Your task to perform on an android device: open app "Gmail" (install if not already installed) Image 0: 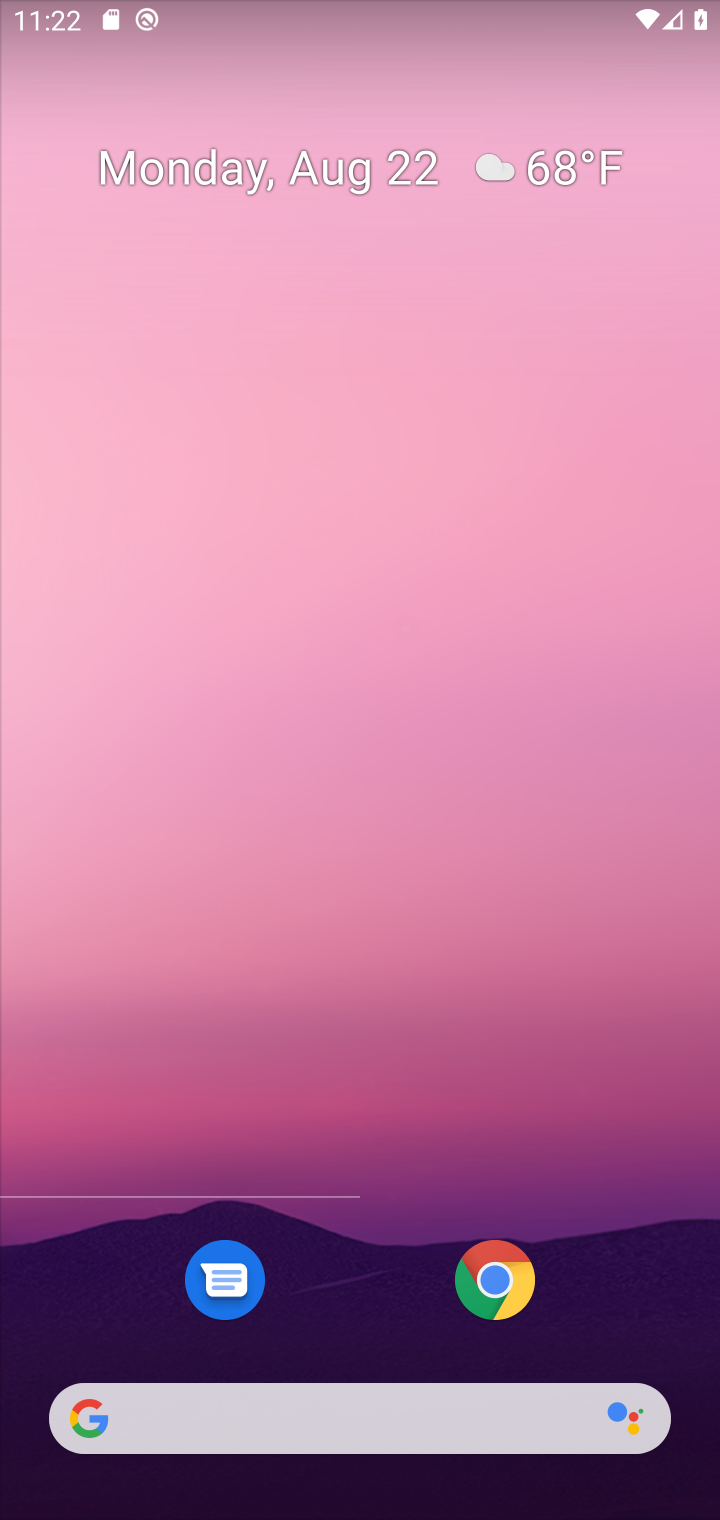
Step 0: press home button
Your task to perform on an android device: open app "Gmail" (install if not already installed) Image 1: 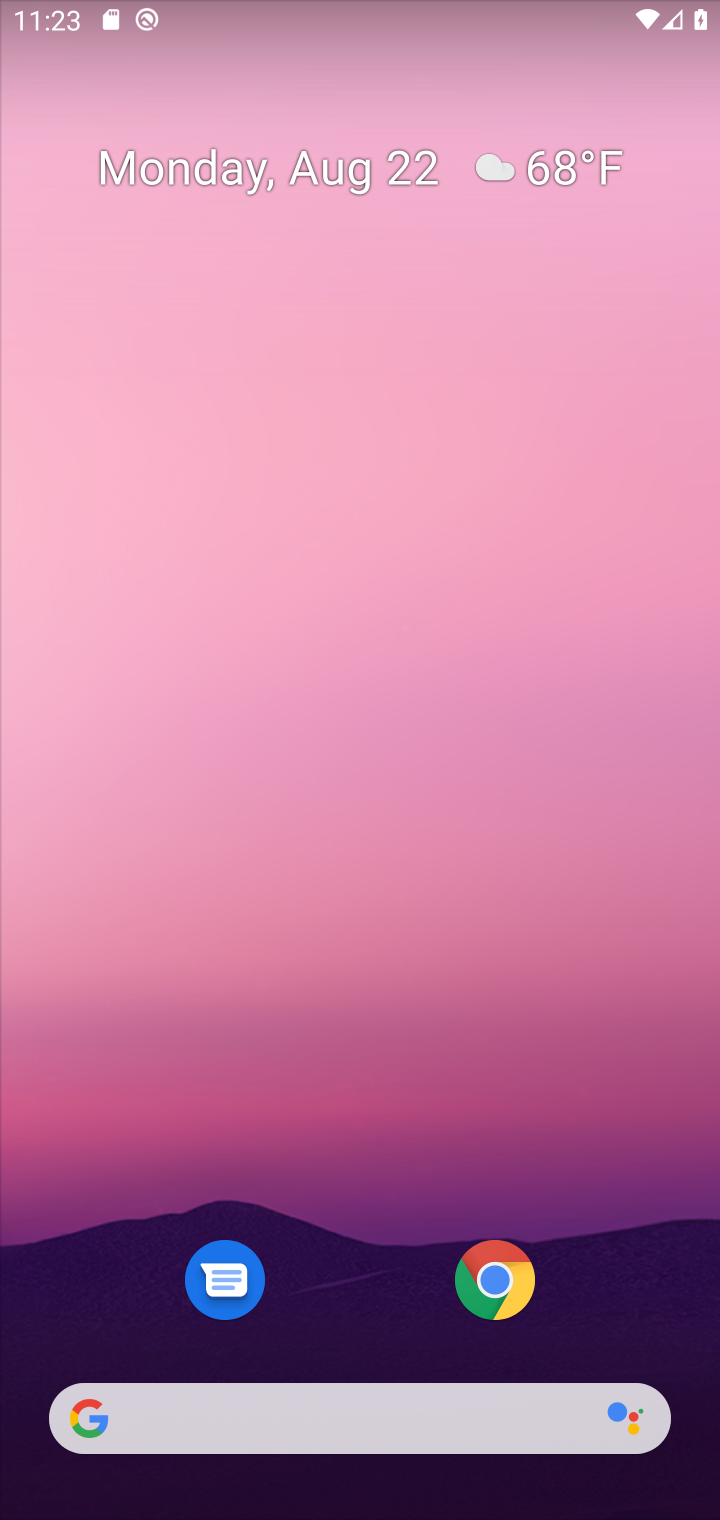
Step 1: drag from (366, 1290) to (333, 294)
Your task to perform on an android device: open app "Gmail" (install if not already installed) Image 2: 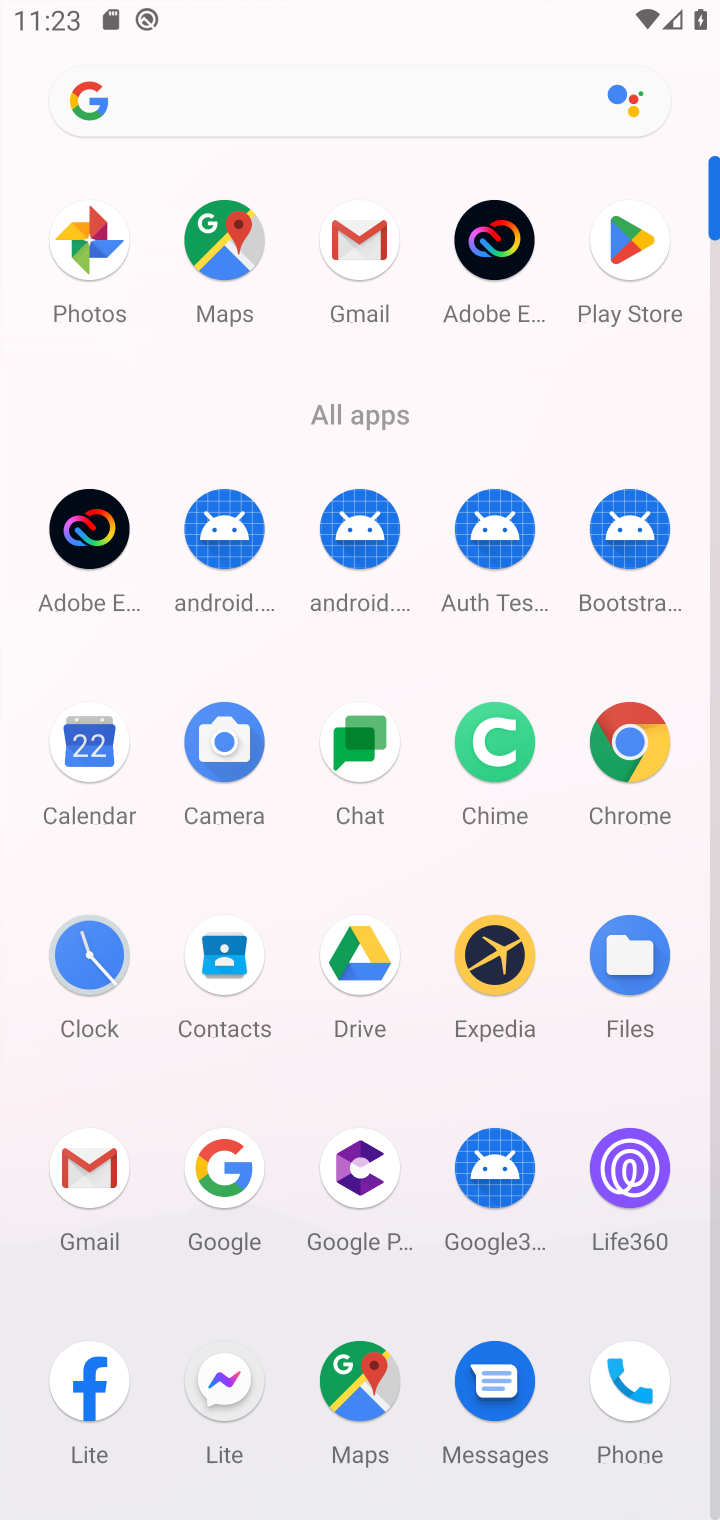
Step 2: click (631, 249)
Your task to perform on an android device: open app "Gmail" (install if not already installed) Image 3: 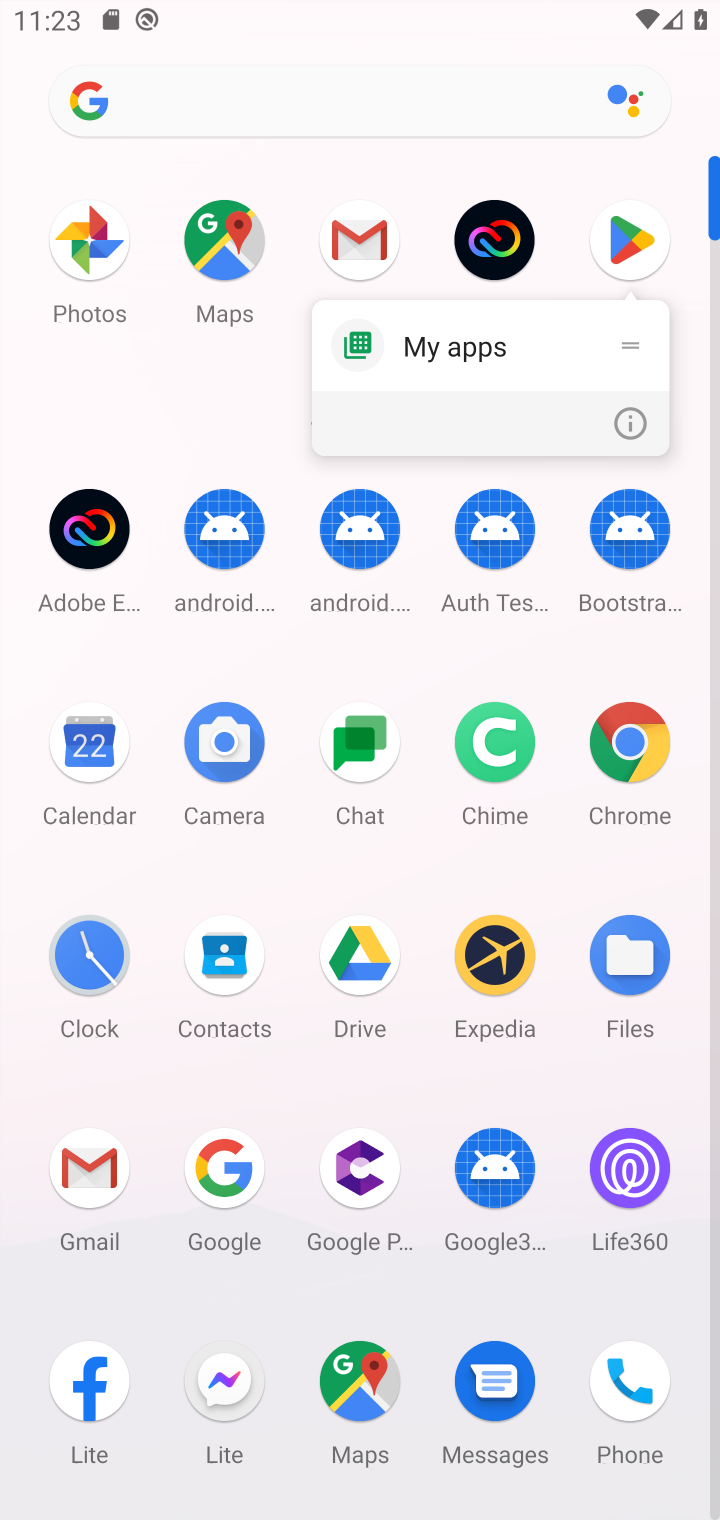
Step 3: click (626, 234)
Your task to perform on an android device: open app "Gmail" (install if not already installed) Image 4: 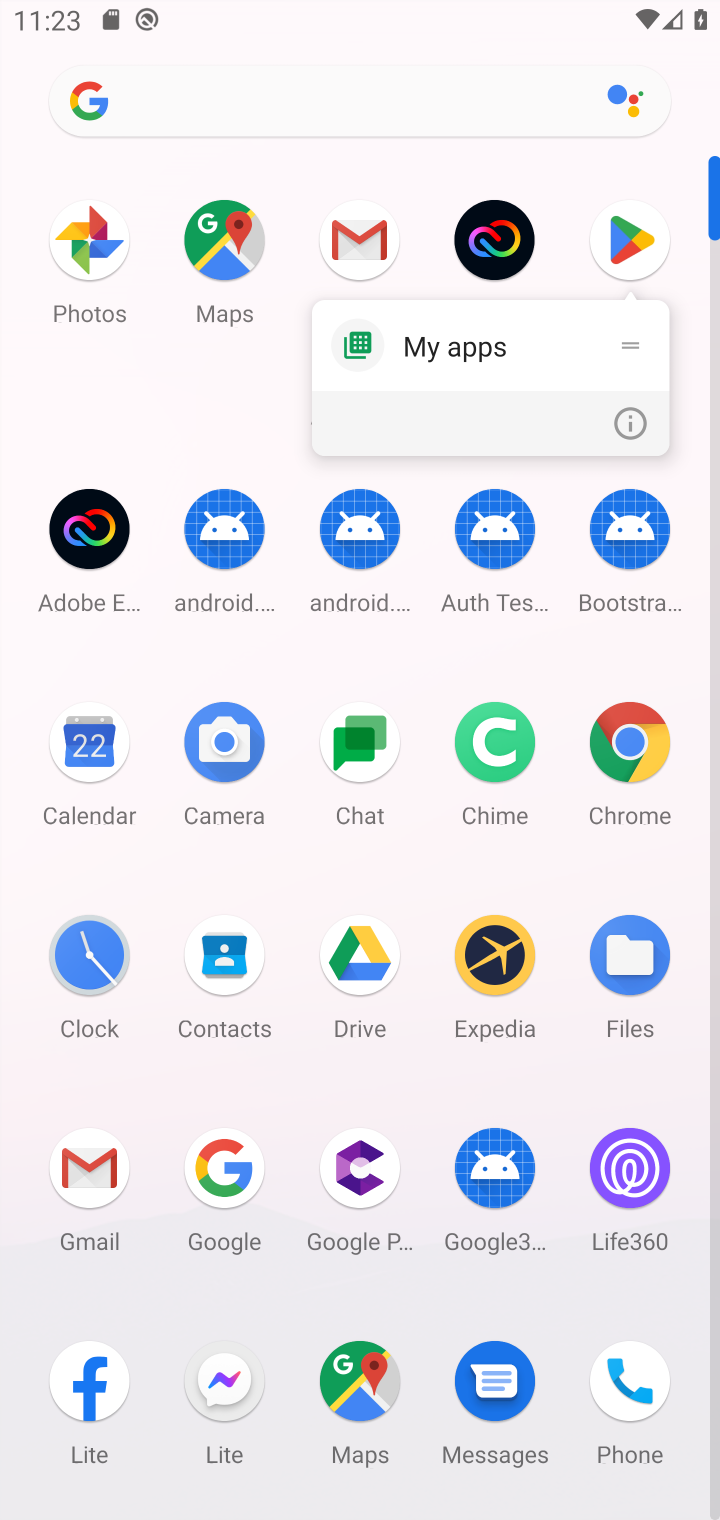
Step 4: click (624, 255)
Your task to perform on an android device: open app "Gmail" (install if not already installed) Image 5: 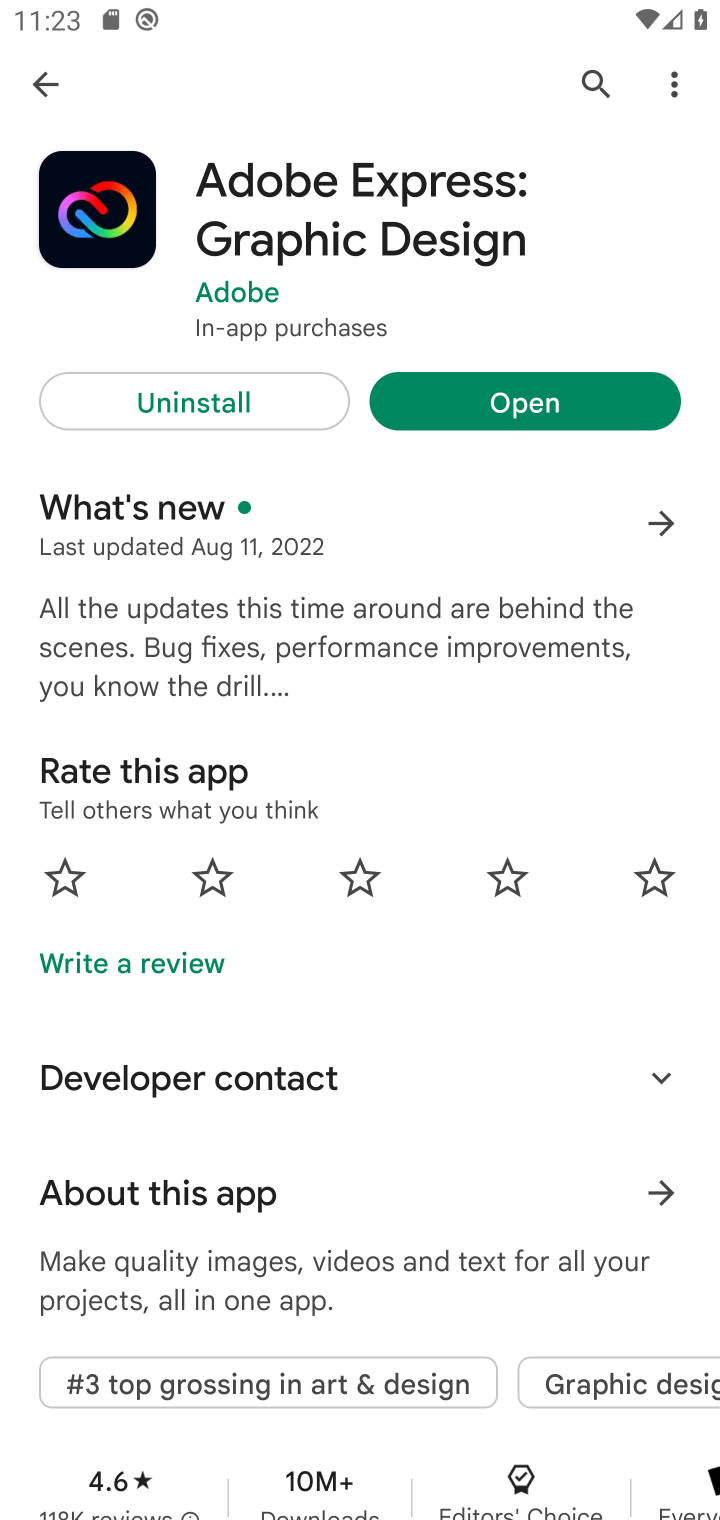
Step 5: click (586, 72)
Your task to perform on an android device: open app "Gmail" (install if not already installed) Image 6: 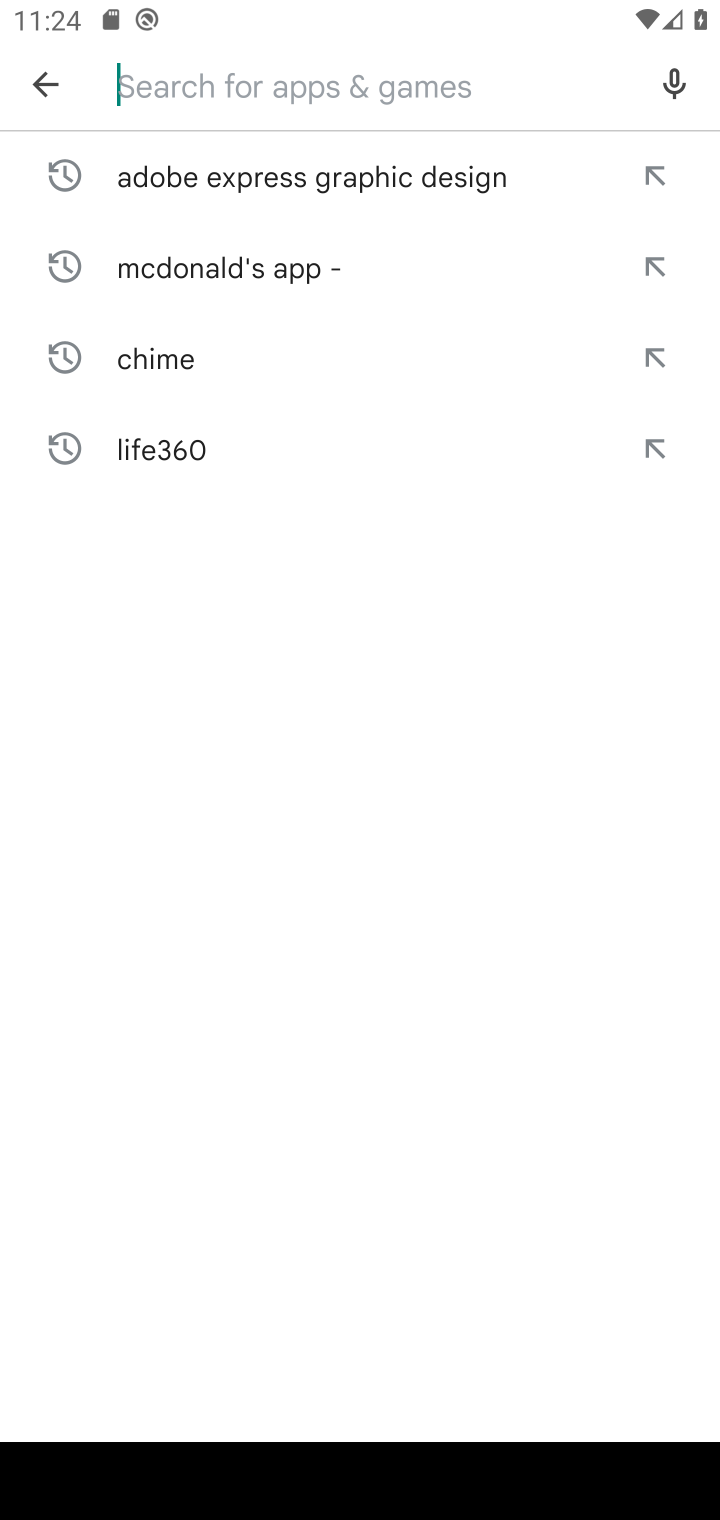
Step 6: type "Gmail"
Your task to perform on an android device: open app "Gmail" (install if not already installed) Image 7: 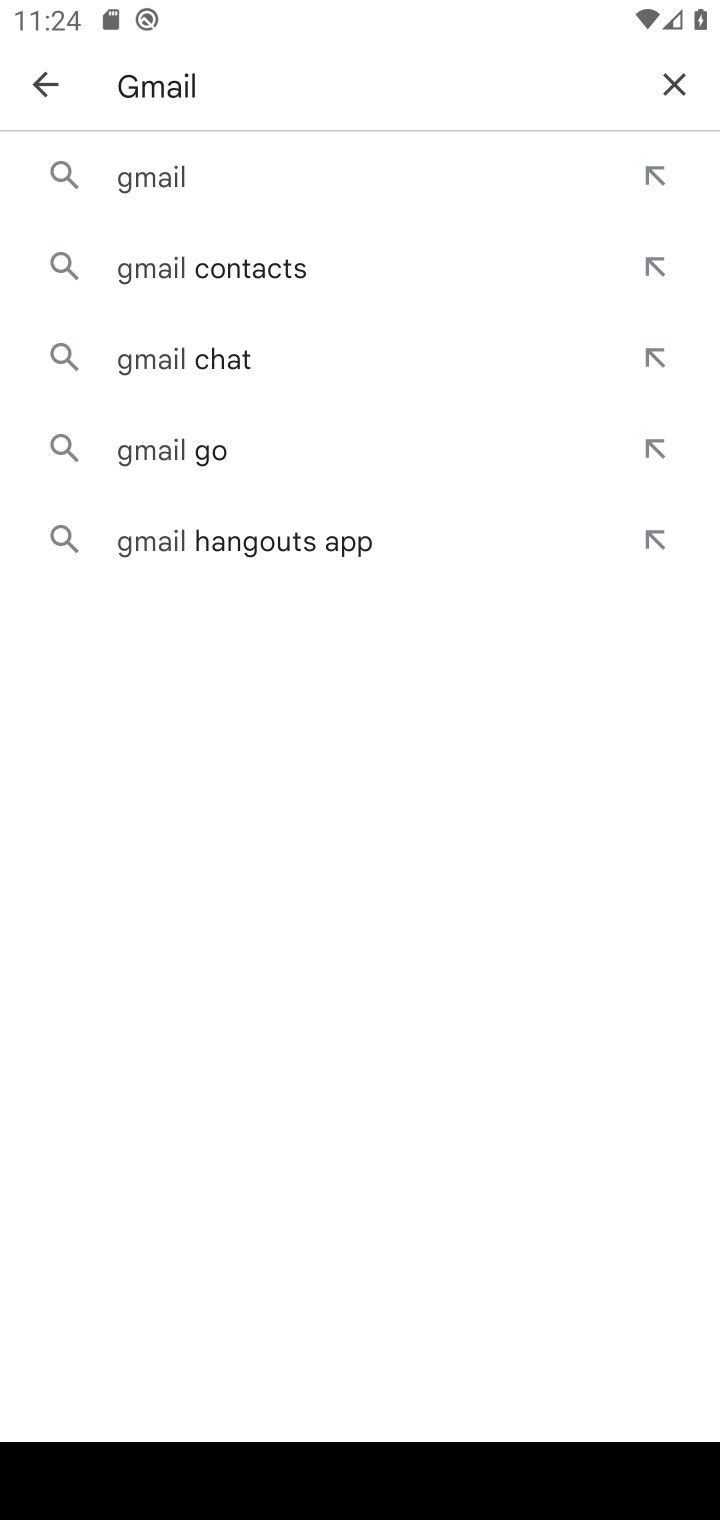
Step 7: click (216, 185)
Your task to perform on an android device: open app "Gmail" (install if not already installed) Image 8: 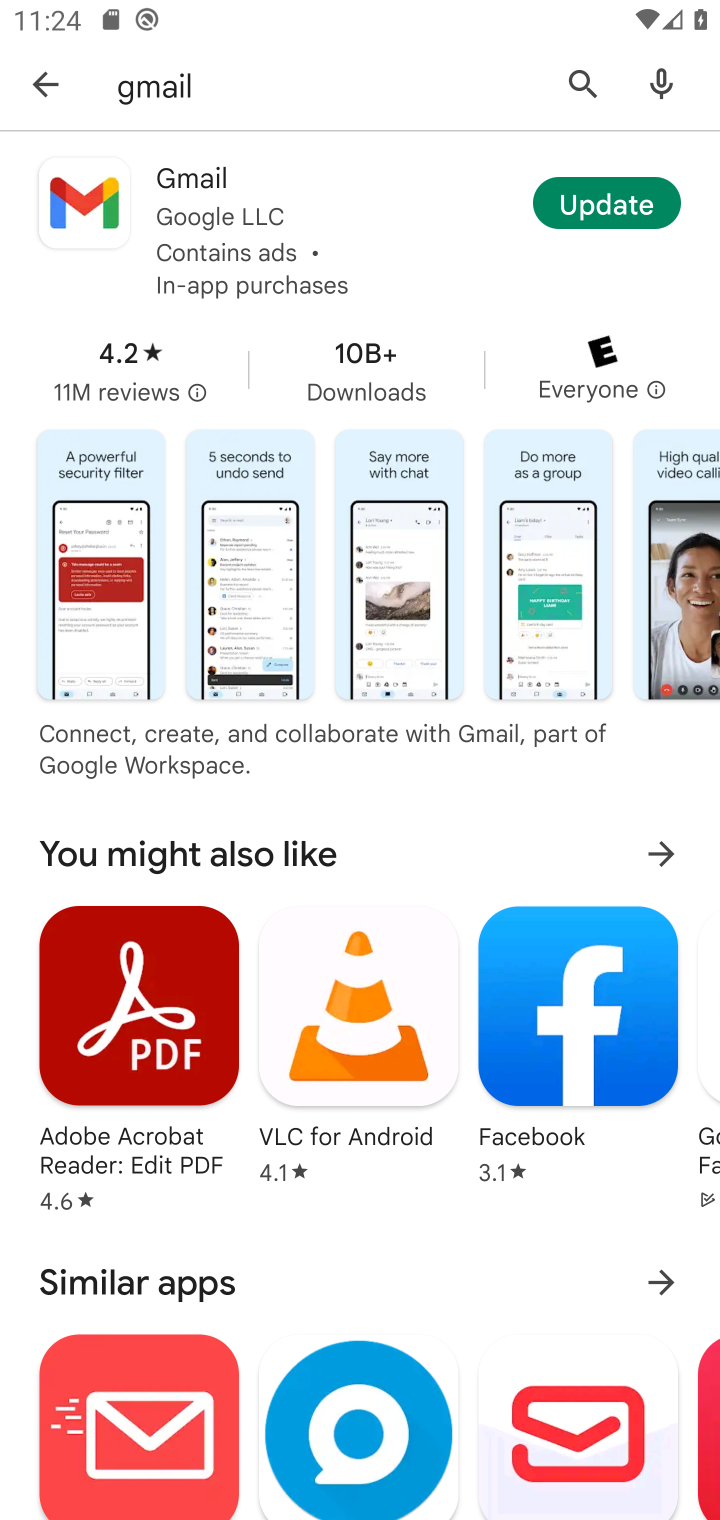
Step 8: click (622, 201)
Your task to perform on an android device: open app "Gmail" (install if not already installed) Image 9: 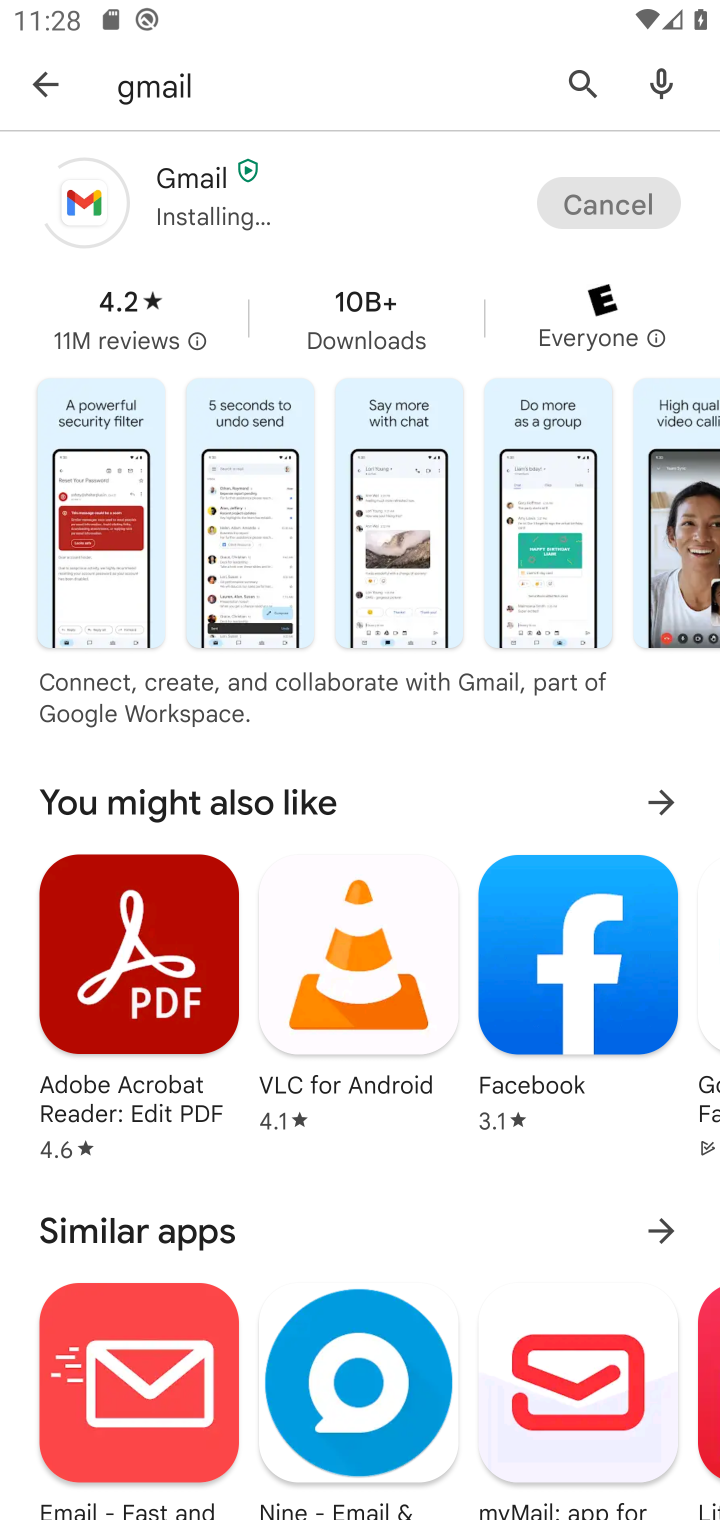
Step 9: task complete